Your task to perform on an android device: What is the recent news? Image 0: 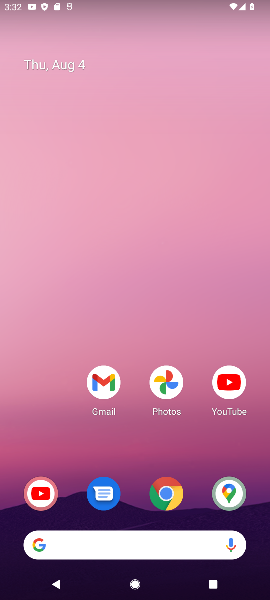
Step 0: drag from (109, 520) to (151, 309)
Your task to perform on an android device: What is the recent news? Image 1: 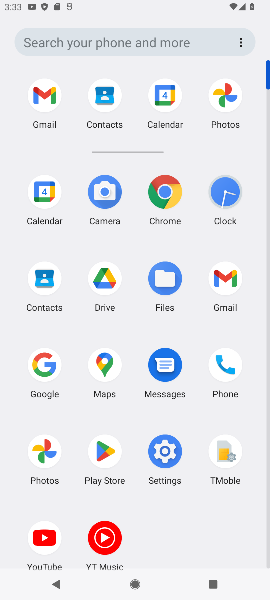
Step 1: click (42, 376)
Your task to perform on an android device: What is the recent news? Image 2: 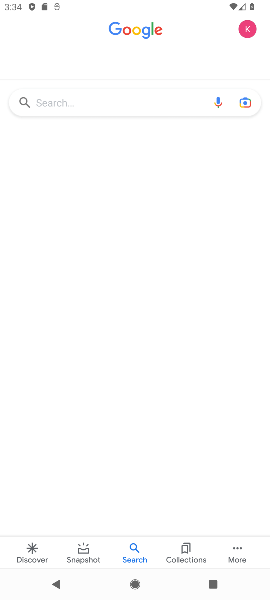
Step 2: click (56, 107)
Your task to perform on an android device: What is the recent news? Image 3: 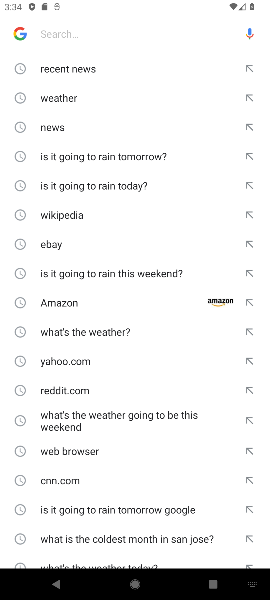
Step 3: click (58, 73)
Your task to perform on an android device: What is the recent news? Image 4: 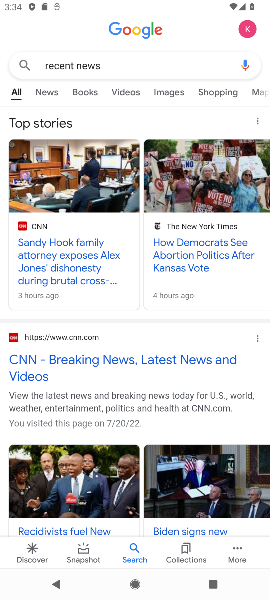
Step 4: task complete